Your task to perform on an android device: check battery use Image 0: 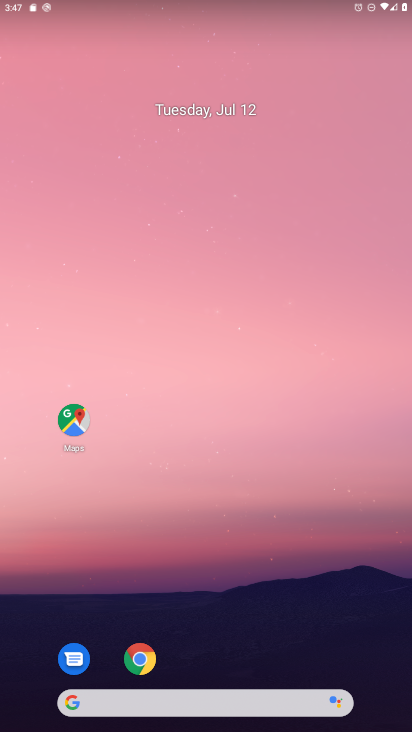
Step 0: drag from (241, 399) to (237, 26)
Your task to perform on an android device: check battery use Image 1: 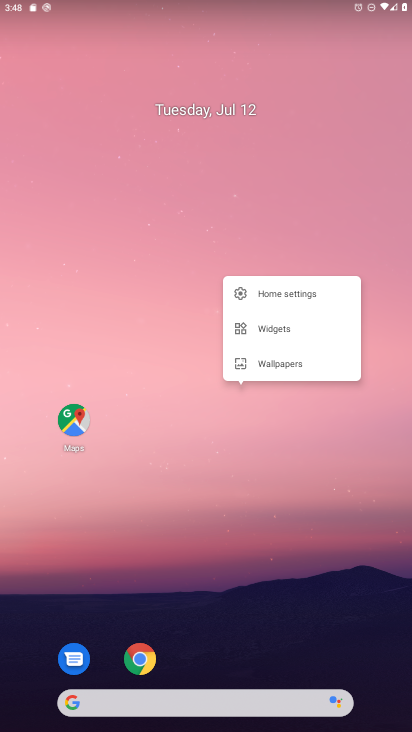
Step 1: click (206, 647)
Your task to perform on an android device: check battery use Image 2: 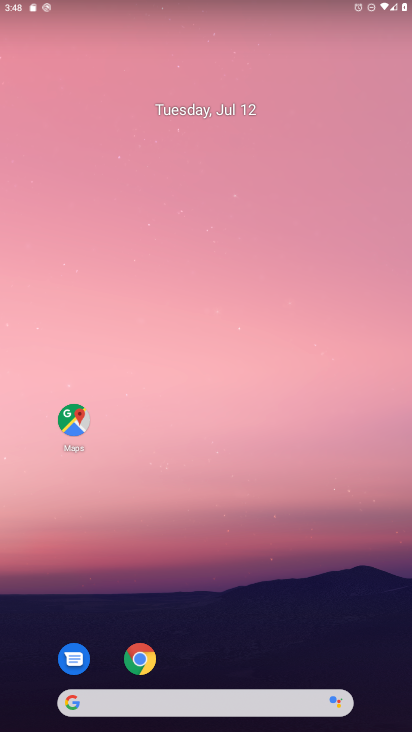
Step 2: drag from (212, 537) to (278, 160)
Your task to perform on an android device: check battery use Image 3: 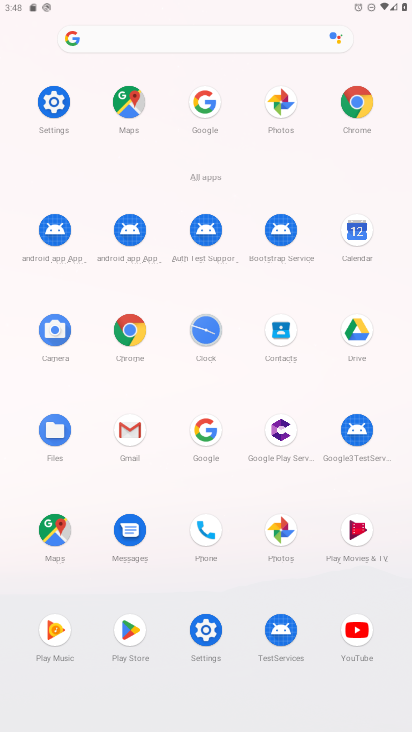
Step 3: click (52, 102)
Your task to perform on an android device: check battery use Image 4: 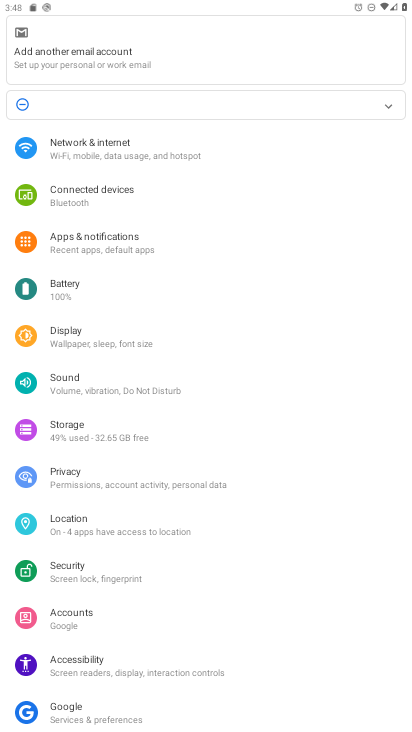
Step 4: click (63, 296)
Your task to perform on an android device: check battery use Image 5: 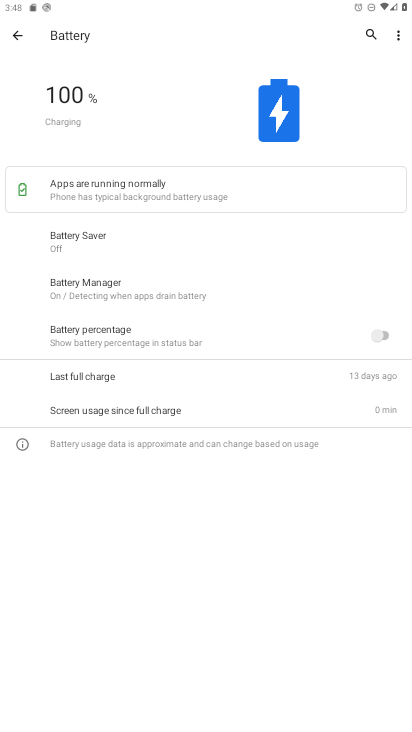
Step 5: task complete